Your task to perform on an android device: Open Chrome and go to the settings page Image 0: 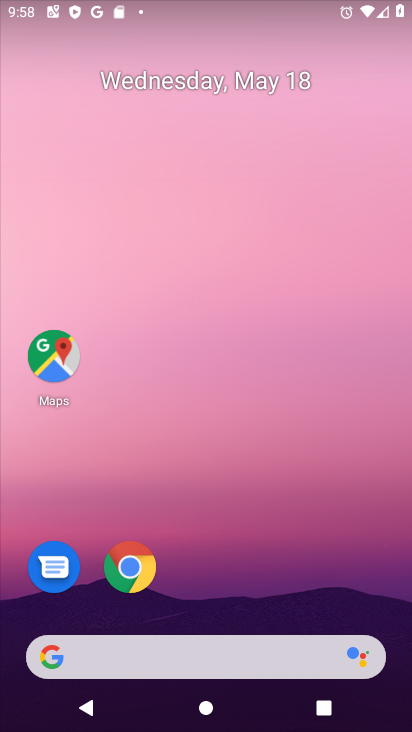
Step 0: click (127, 562)
Your task to perform on an android device: Open Chrome and go to the settings page Image 1: 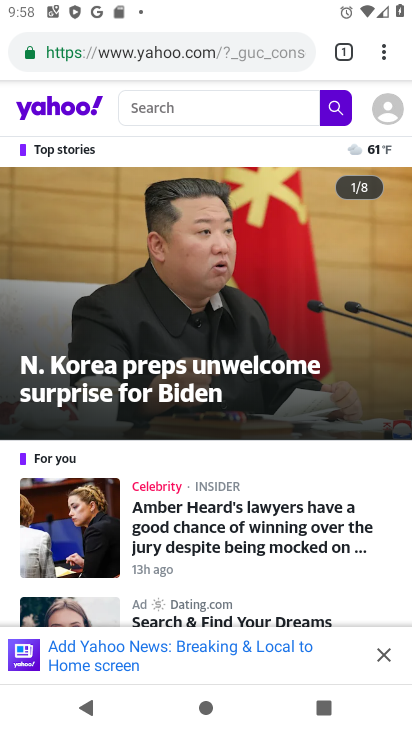
Step 1: task complete